Your task to perform on an android device: Open calendar and show me the fourth week of next month Image 0: 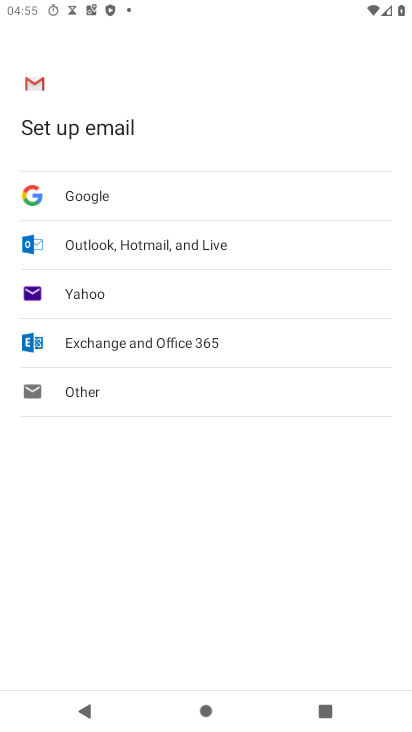
Step 0: press home button
Your task to perform on an android device: Open calendar and show me the fourth week of next month Image 1: 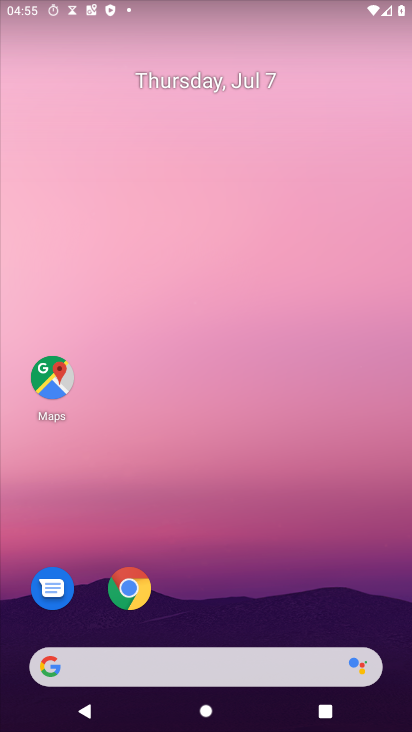
Step 1: drag from (240, 631) to (202, 154)
Your task to perform on an android device: Open calendar and show me the fourth week of next month Image 2: 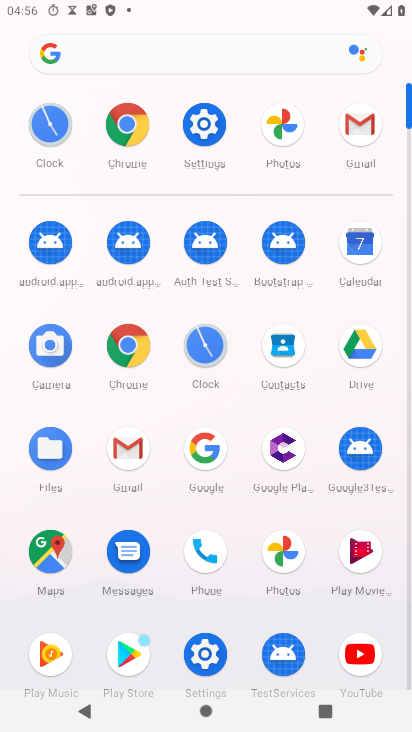
Step 2: click (349, 260)
Your task to perform on an android device: Open calendar and show me the fourth week of next month Image 3: 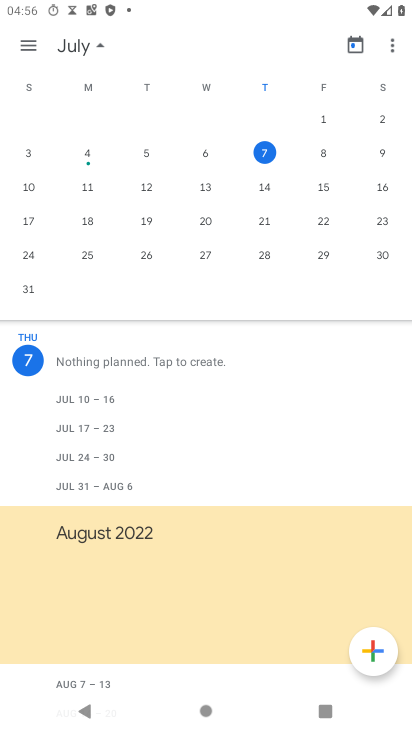
Step 3: drag from (361, 170) to (3, 196)
Your task to perform on an android device: Open calendar and show me the fourth week of next month Image 4: 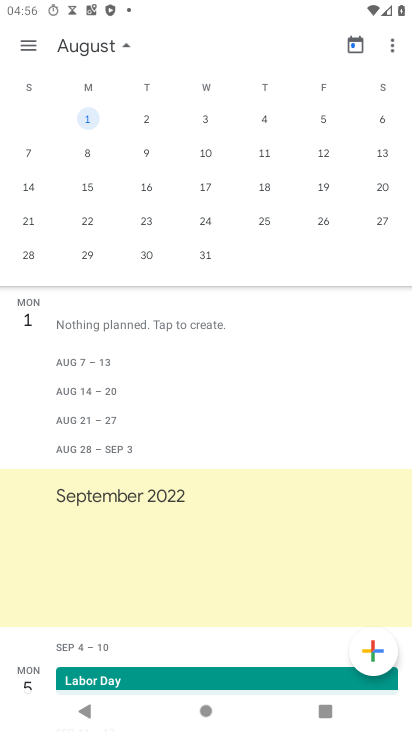
Step 4: click (268, 222)
Your task to perform on an android device: Open calendar and show me the fourth week of next month Image 5: 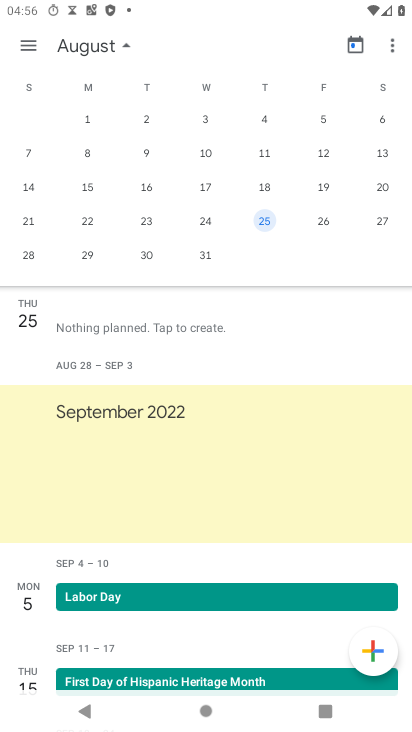
Step 5: click (320, 219)
Your task to perform on an android device: Open calendar and show me the fourth week of next month Image 6: 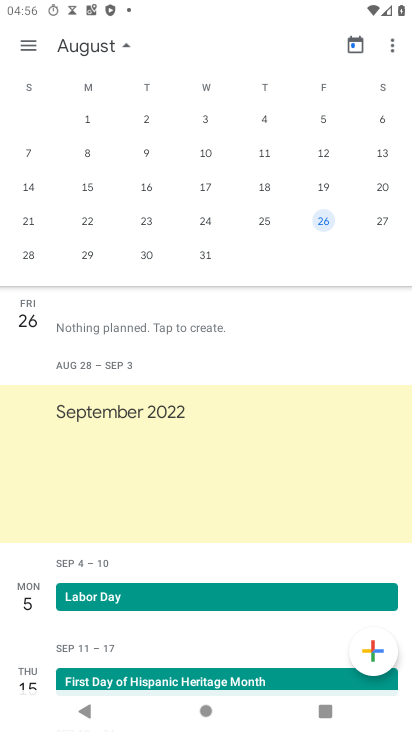
Step 6: click (379, 221)
Your task to perform on an android device: Open calendar and show me the fourth week of next month Image 7: 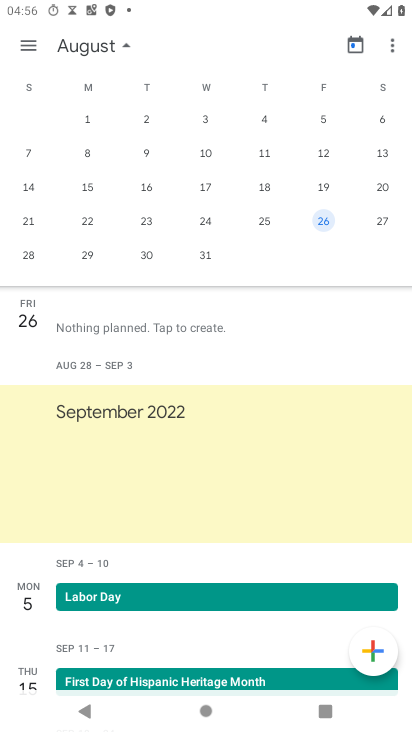
Step 7: click (29, 260)
Your task to perform on an android device: Open calendar and show me the fourth week of next month Image 8: 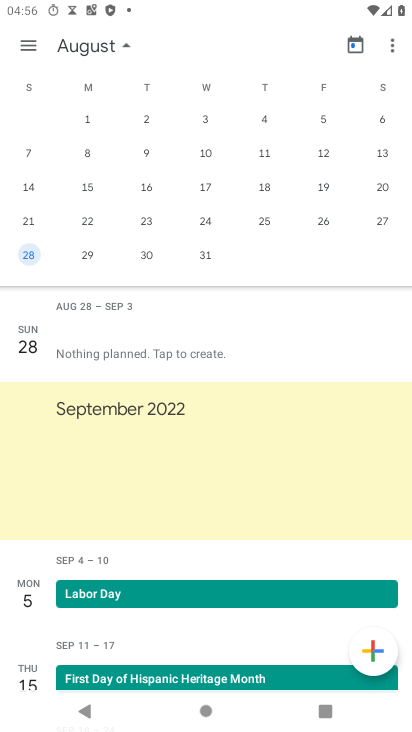
Step 8: click (94, 253)
Your task to perform on an android device: Open calendar and show me the fourth week of next month Image 9: 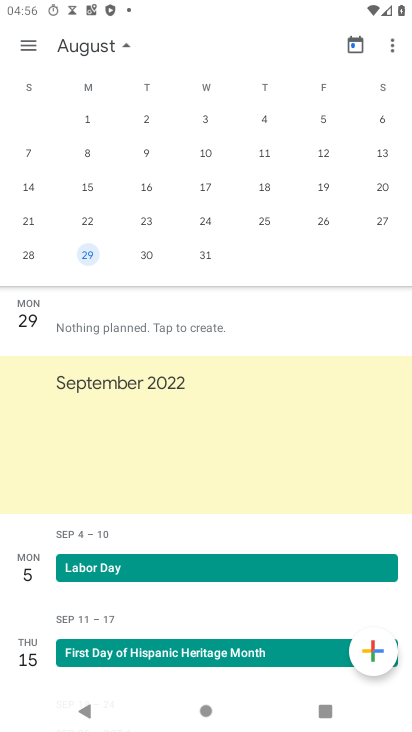
Step 9: click (154, 259)
Your task to perform on an android device: Open calendar and show me the fourth week of next month Image 10: 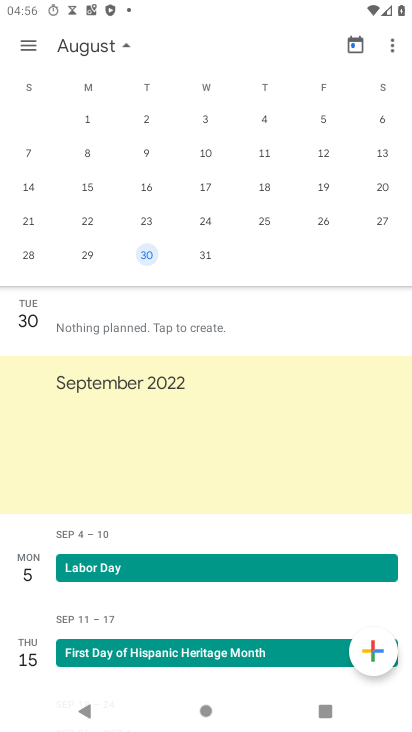
Step 10: click (212, 257)
Your task to perform on an android device: Open calendar and show me the fourth week of next month Image 11: 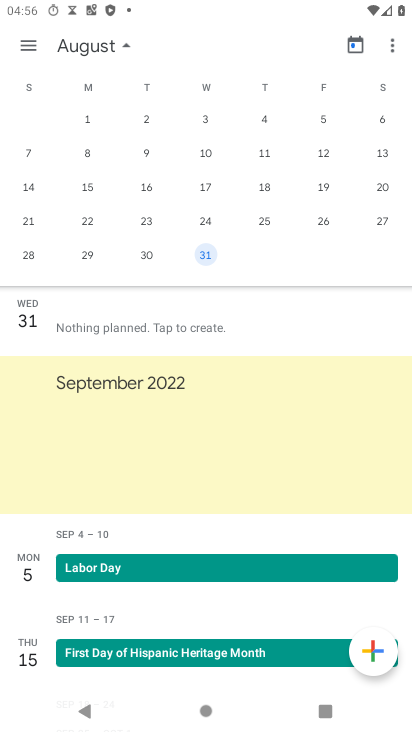
Step 11: task complete